Your task to perform on an android device: toggle translation in the chrome app Image 0: 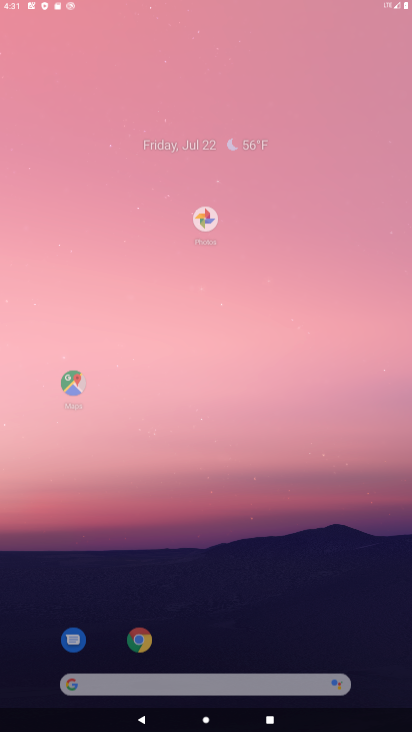
Step 0: click (376, 164)
Your task to perform on an android device: toggle translation in the chrome app Image 1: 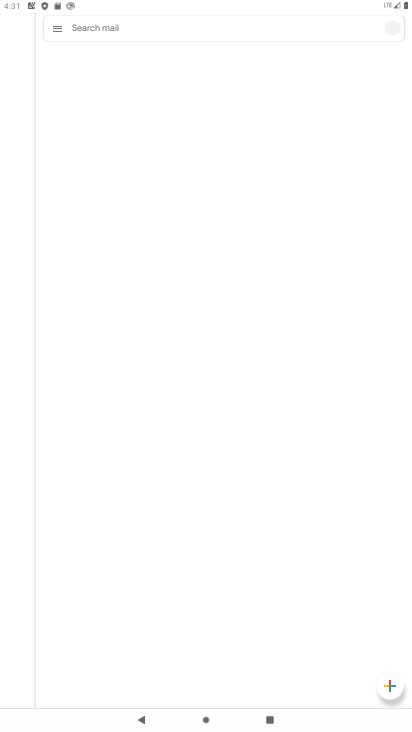
Step 1: drag from (271, 513) to (257, 25)
Your task to perform on an android device: toggle translation in the chrome app Image 2: 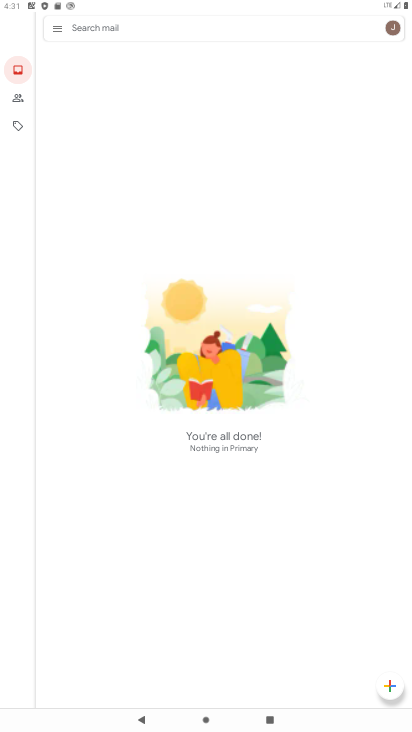
Step 2: press back button
Your task to perform on an android device: toggle translation in the chrome app Image 3: 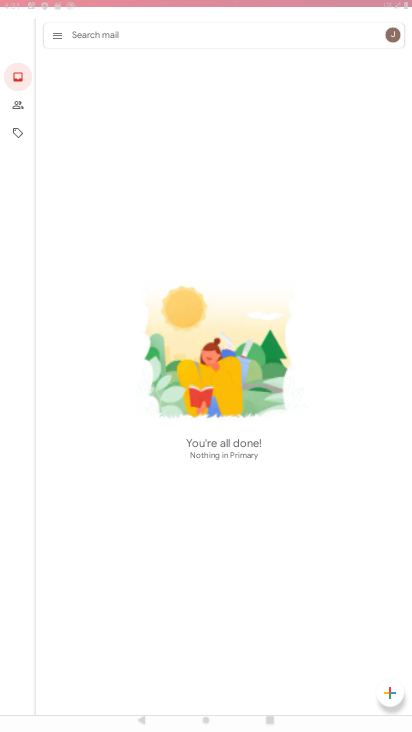
Step 3: press back button
Your task to perform on an android device: toggle translation in the chrome app Image 4: 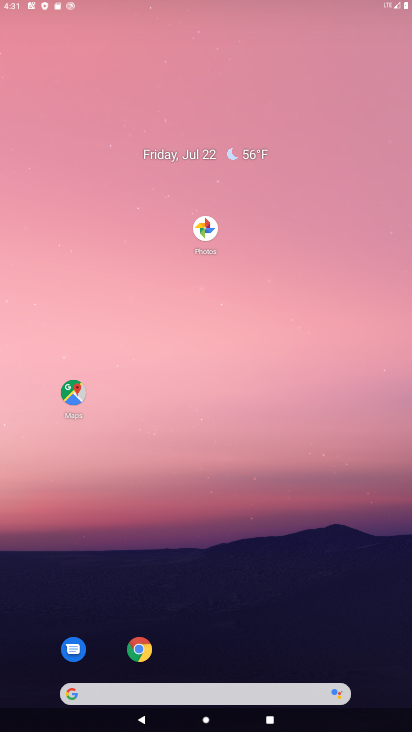
Step 4: press back button
Your task to perform on an android device: toggle translation in the chrome app Image 5: 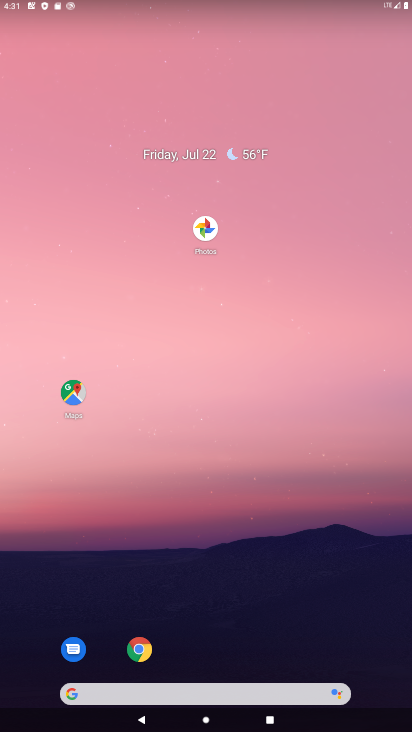
Step 5: click (122, 46)
Your task to perform on an android device: toggle translation in the chrome app Image 6: 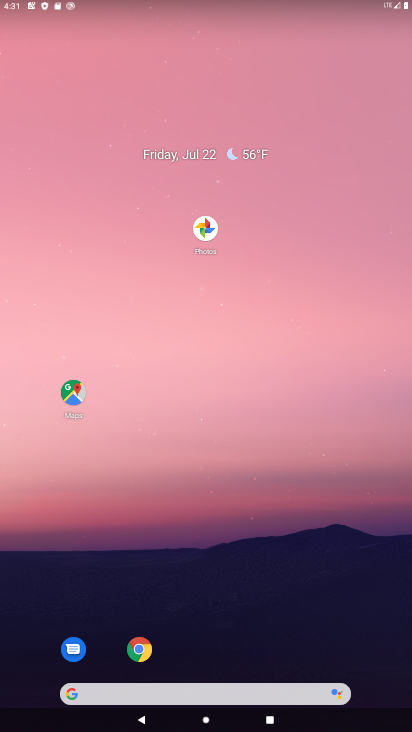
Step 6: click (169, 91)
Your task to perform on an android device: toggle translation in the chrome app Image 7: 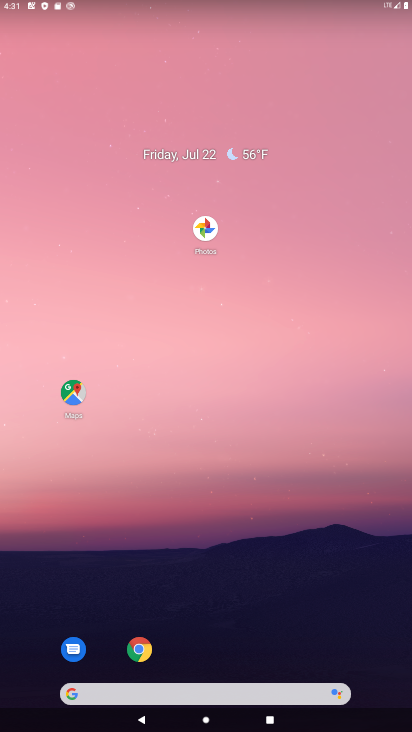
Step 7: drag from (184, 295) to (155, 73)
Your task to perform on an android device: toggle translation in the chrome app Image 8: 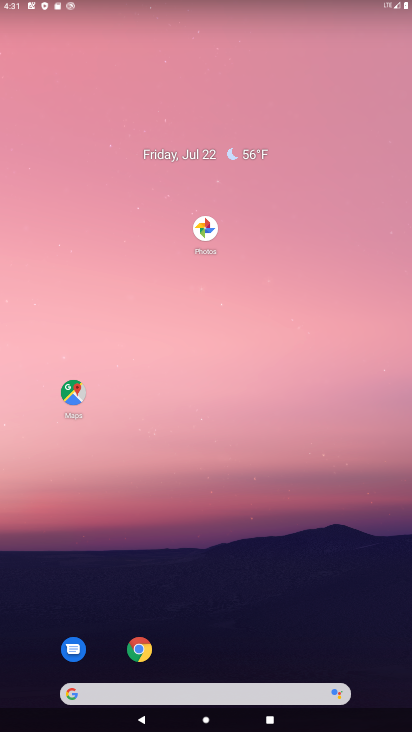
Step 8: drag from (216, 307) to (199, 105)
Your task to perform on an android device: toggle translation in the chrome app Image 9: 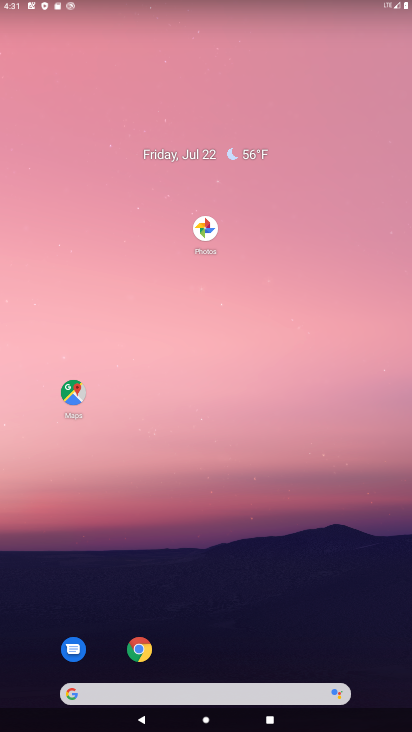
Step 9: drag from (236, 558) to (172, 75)
Your task to perform on an android device: toggle translation in the chrome app Image 10: 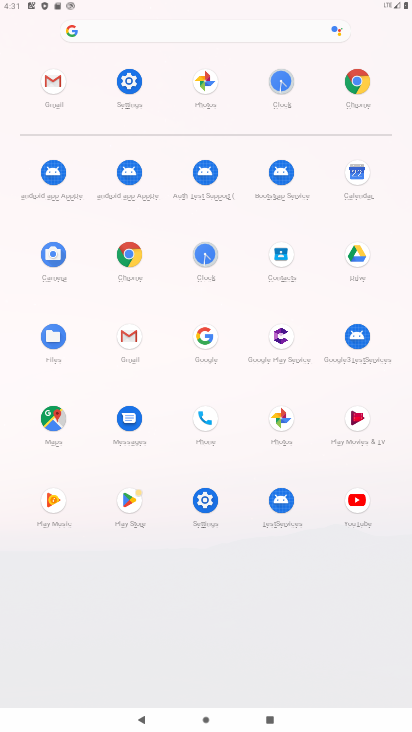
Step 10: click (360, 81)
Your task to perform on an android device: toggle translation in the chrome app Image 11: 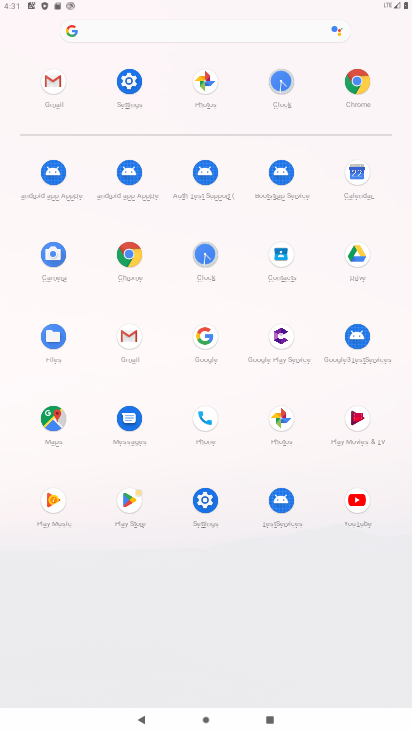
Step 11: click (358, 81)
Your task to perform on an android device: toggle translation in the chrome app Image 12: 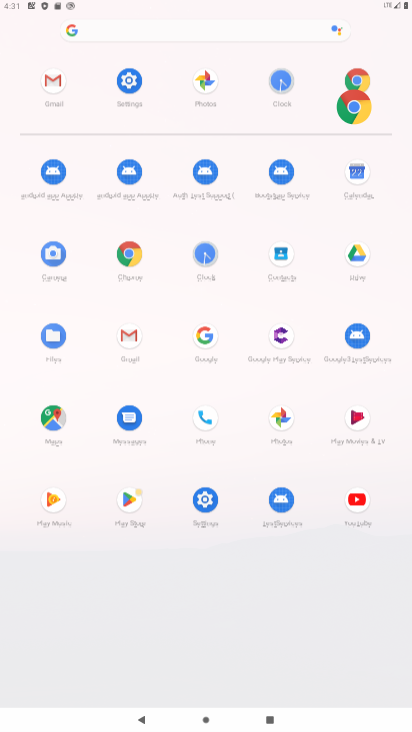
Step 12: click (358, 81)
Your task to perform on an android device: toggle translation in the chrome app Image 13: 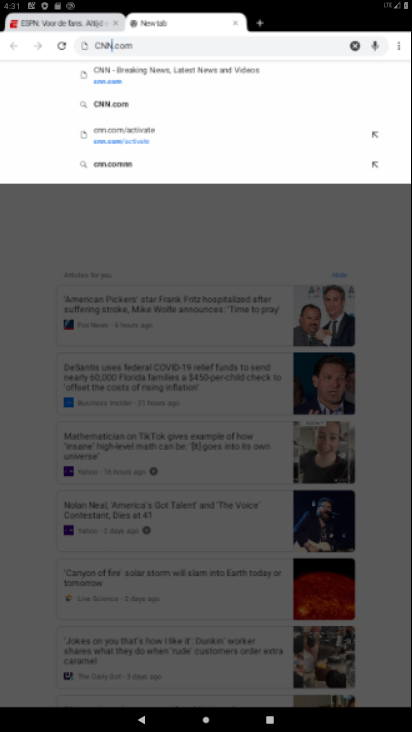
Step 13: click (359, 80)
Your task to perform on an android device: toggle translation in the chrome app Image 14: 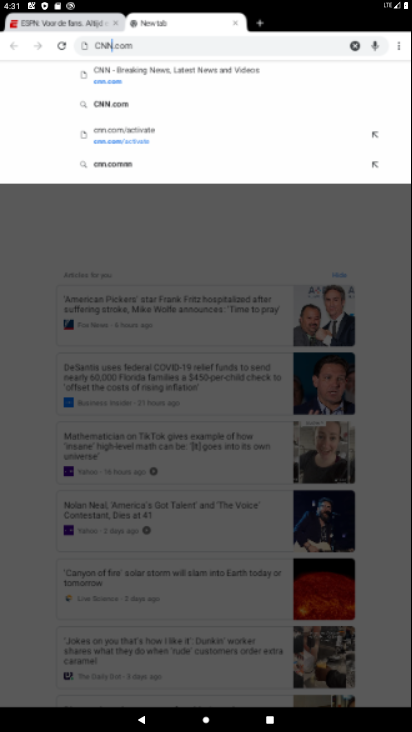
Step 14: click (359, 80)
Your task to perform on an android device: toggle translation in the chrome app Image 15: 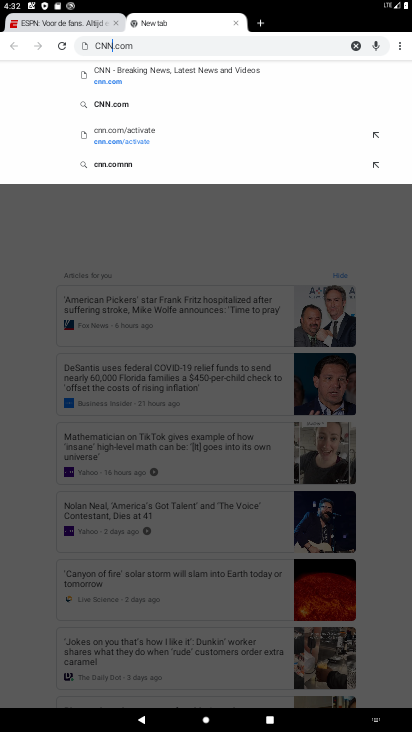
Step 15: click (376, 160)
Your task to perform on an android device: toggle translation in the chrome app Image 16: 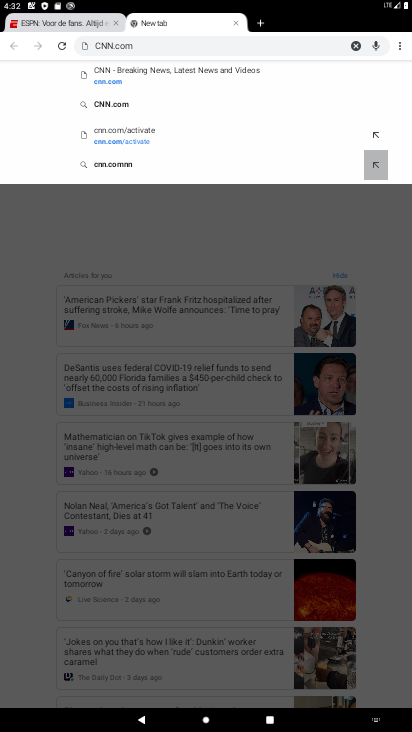
Step 16: click (374, 162)
Your task to perform on an android device: toggle translation in the chrome app Image 17: 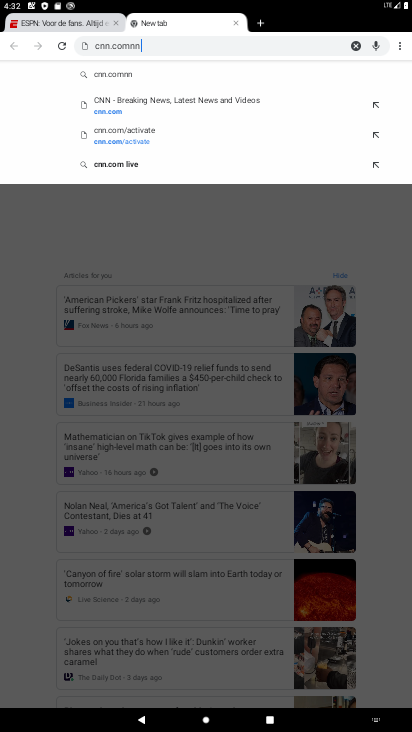
Step 17: click (374, 162)
Your task to perform on an android device: toggle translation in the chrome app Image 18: 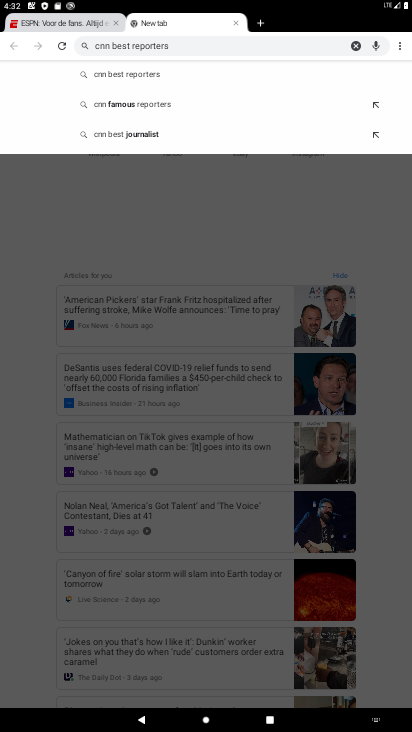
Step 18: click (347, 192)
Your task to perform on an android device: toggle translation in the chrome app Image 19: 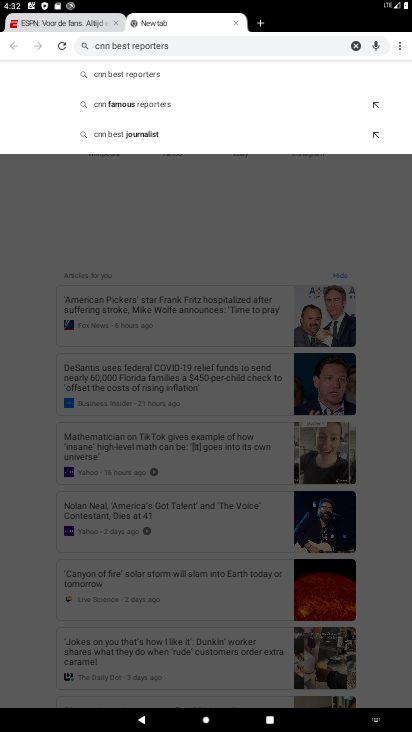
Step 19: click (347, 192)
Your task to perform on an android device: toggle translation in the chrome app Image 20: 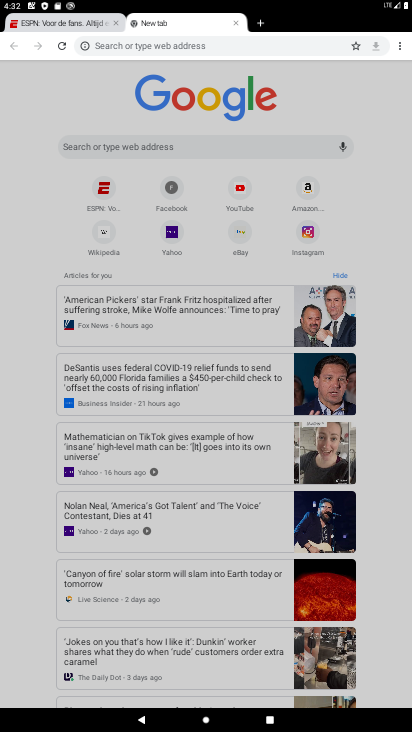
Step 20: click (347, 192)
Your task to perform on an android device: toggle translation in the chrome app Image 21: 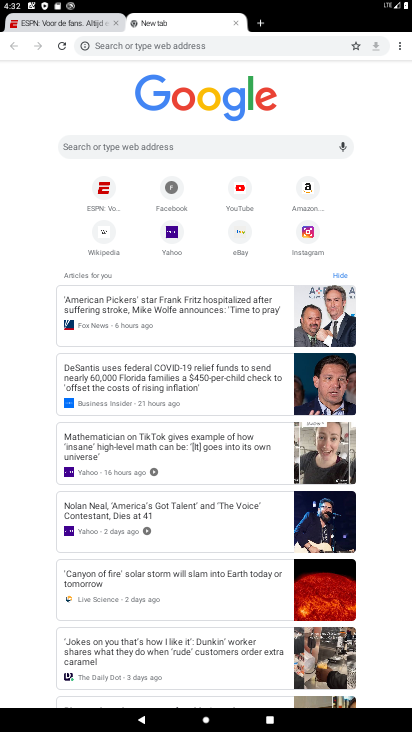
Step 21: click (347, 192)
Your task to perform on an android device: toggle translation in the chrome app Image 22: 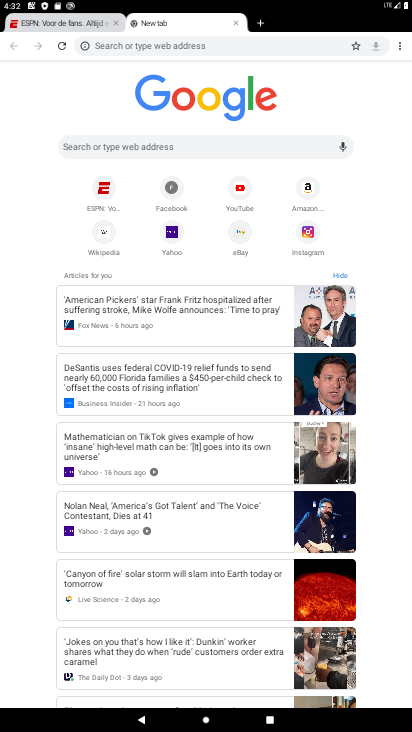
Step 22: click (348, 193)
Your task to perform on an android device: toggle translation in the chrome app Image 23: 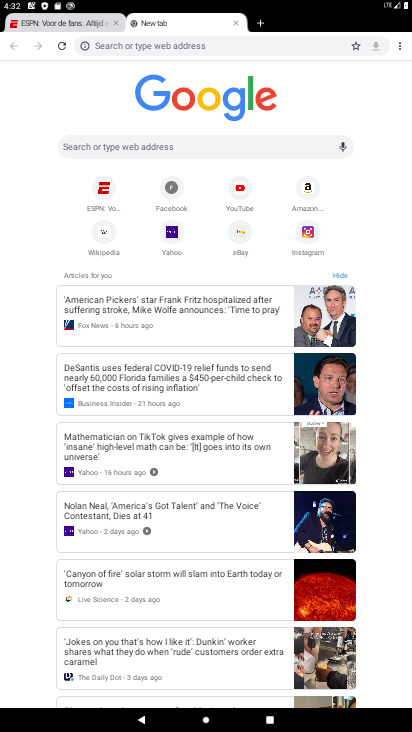
Step 23: drag from (399, 51) to (303, 219)
Your task to perform on an android device: toggle translation in the chrome app Image 24: 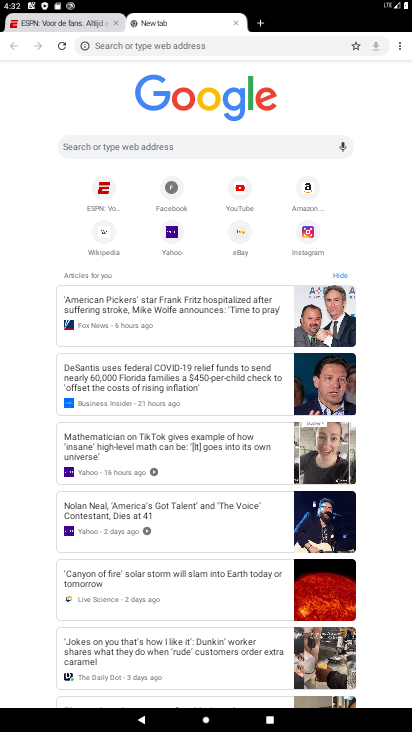
Step 24: click (301, 222)
Your task to perform on an android device: toggle translation in the chrome app Image 25: 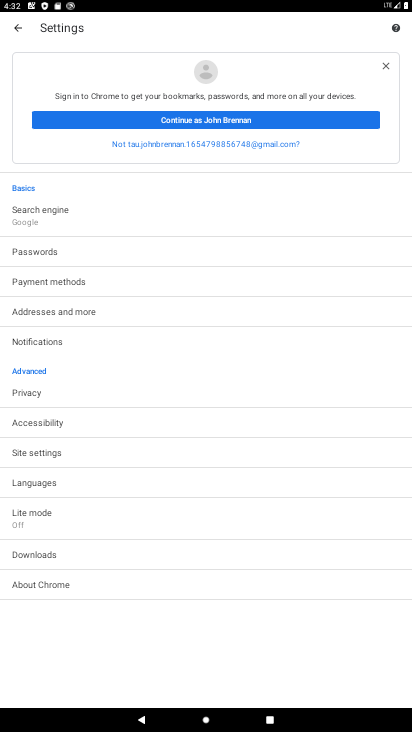
Step 25: click (40, 490)
Your task to perform on an android device: toggle translation in the chrome app Image 26: 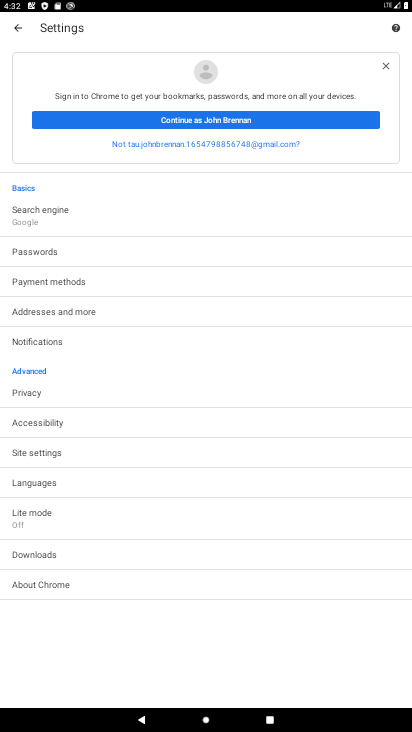
Step 26: click (39, 487)
Your task to perform on an android device: toggle translation in the chrome app Image 27: 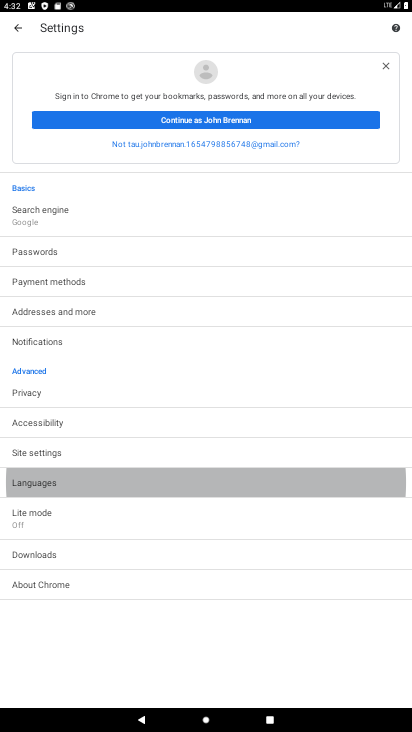
Step 27: click (39, 484)
Your task to perform on an android device: toggle translation in the chrome app Image 28: 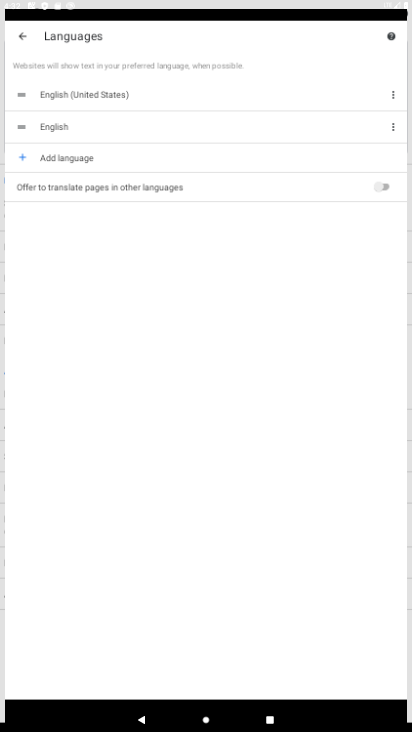
Step 28: click (45, 481)
Your task to perform on an android device: toggle translation in the chrome app Image 29: 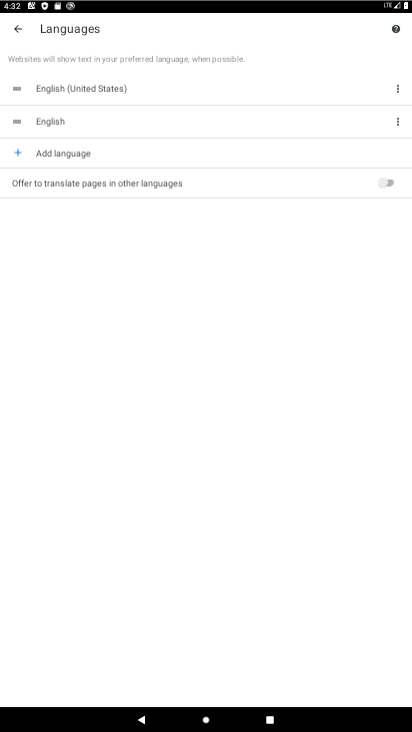
Step 29: click (49, 480)
Your task to perform on an android device: toggle translation in the chrome app Image 30: 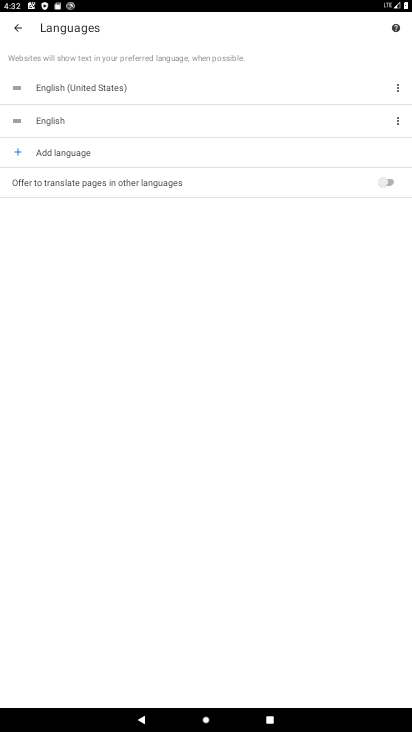
Step 30: click (53, 481)
Your task to perform on an android device: toggle translation in the chrome app Image 31: 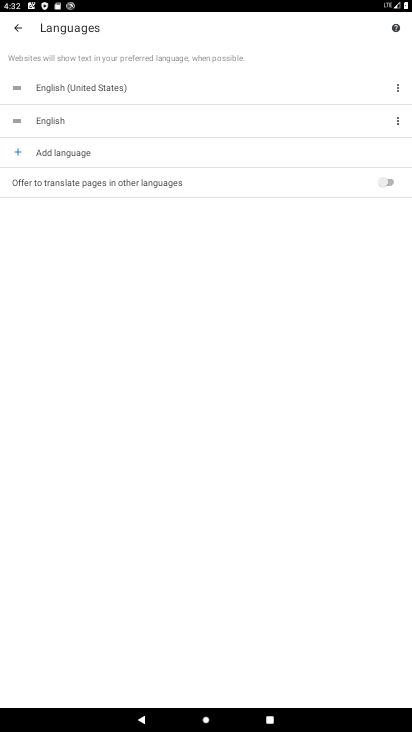
Step 31: click (385, 181)
Your task to perform on an android device: toggle translation in the chrome app Image 32: 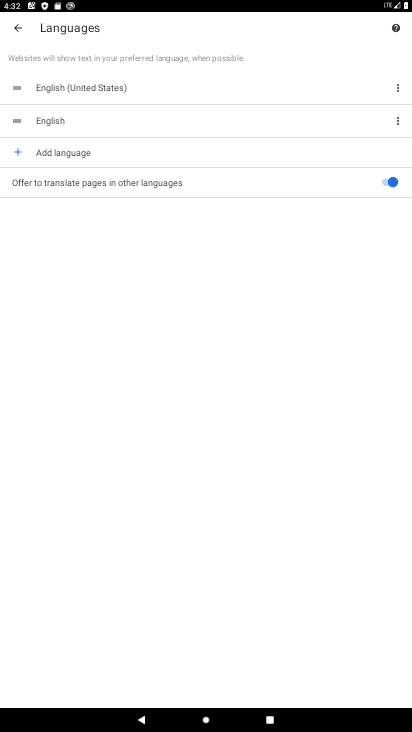
Step 32: click (18, 34)
Your task to perform on an android device: toggle translation in the chrome app Image 33: 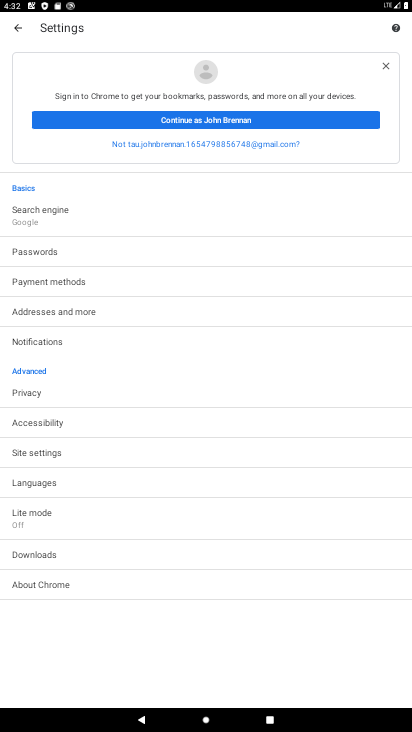
Step 33: click (78, 487)
Your task to perform on an android device: toggle translation in the chrome app Image 34: 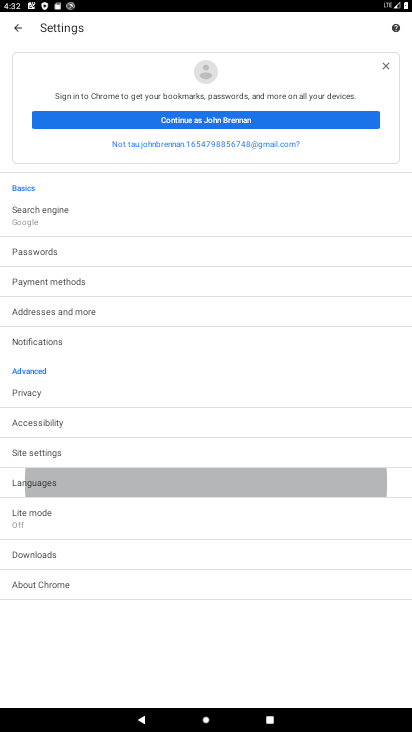
Step 34: click (78, 487)
Your task to perform on an android device: toggle translation in the chrome app Image 35: 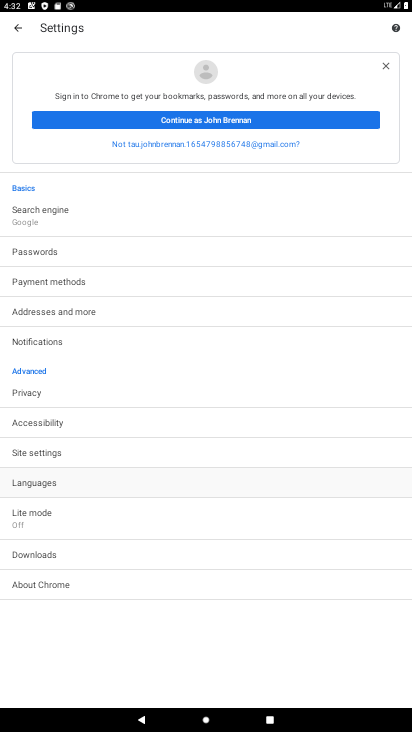
Step 35: click (78, 487)
Your task to perform on an android device: toggle translation in the chrome app Image 36: 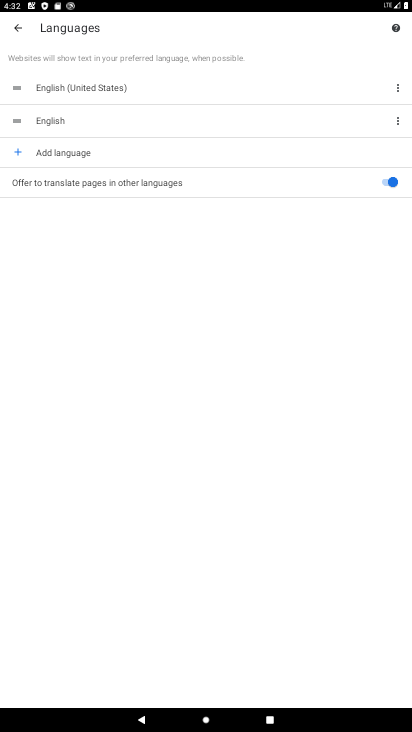
Step 36: click (78, 487)
Your task to perform on an android device: toggle translation in the chrome app Image 37: 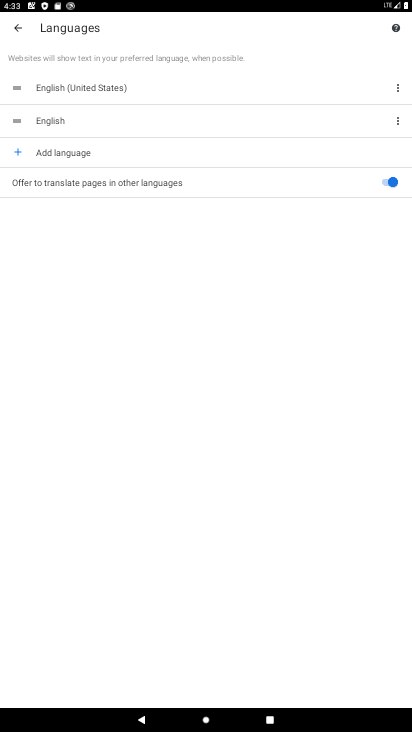
Step 37: click (392, 177)
Your task to perform on an android device: toggle translation in the chrome app Image 38: 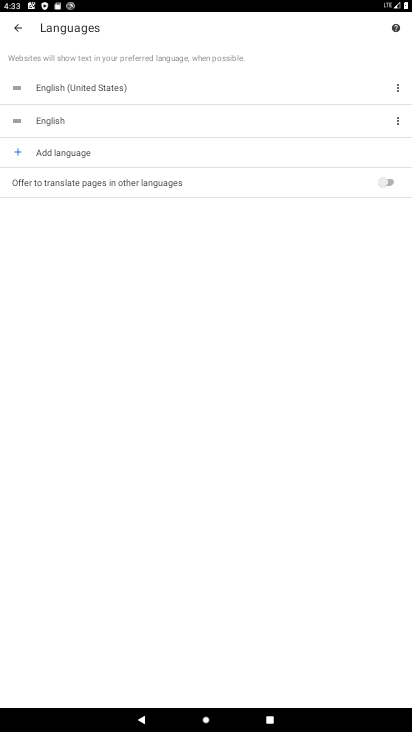
Step 38: click (383, 182)
Your task to perform on an android device: toggle translation in the chrome app Image 39: 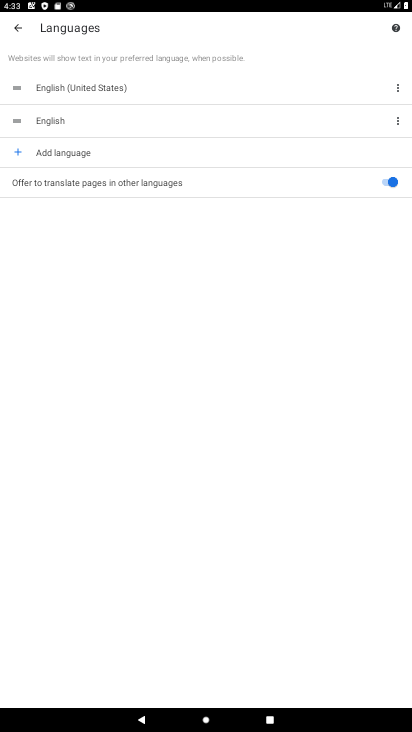
Step 39: task complete